Your task to perform on an android device: Open accessibility settings Image 0: 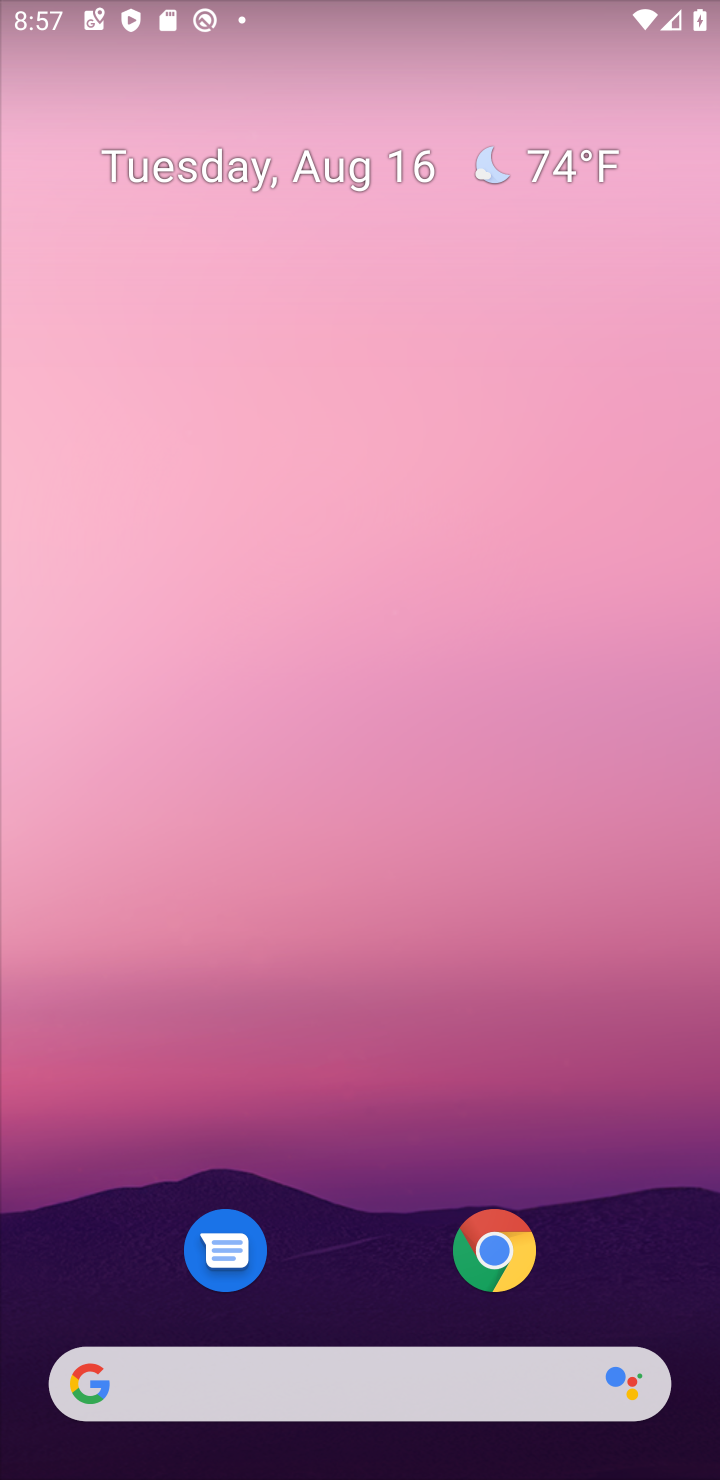
Step 0: drag from (380, 389) to (427, 55)
Your task to perform on an android device: Open accessibility settings Image 1: 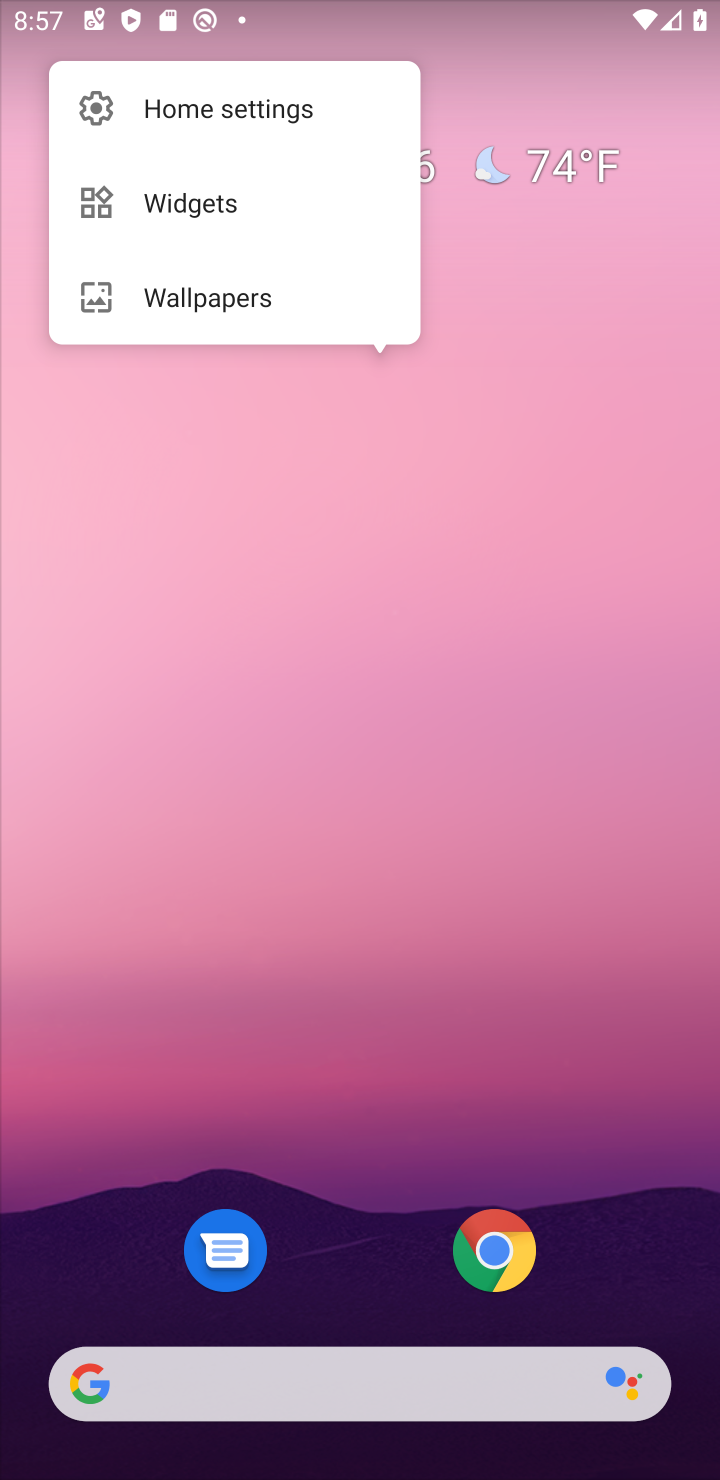
Step 1: drag from (475, 421) to (517, 59)
Your task to perform on an android device: Open accessibility settings Image 2: 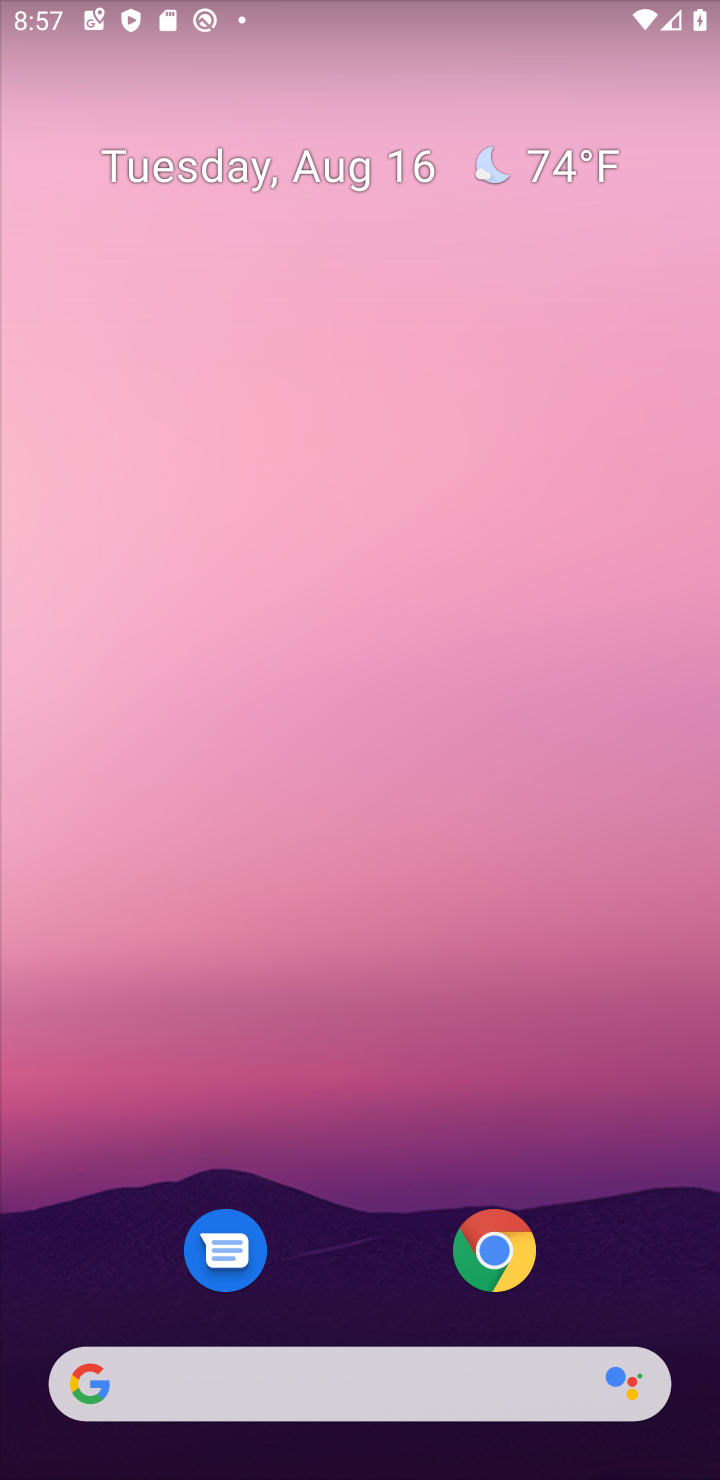
Step 2: drag from (394, 1265) to (383, 108)
Your task to perform on an android device: Open accessibility settings Image 3: 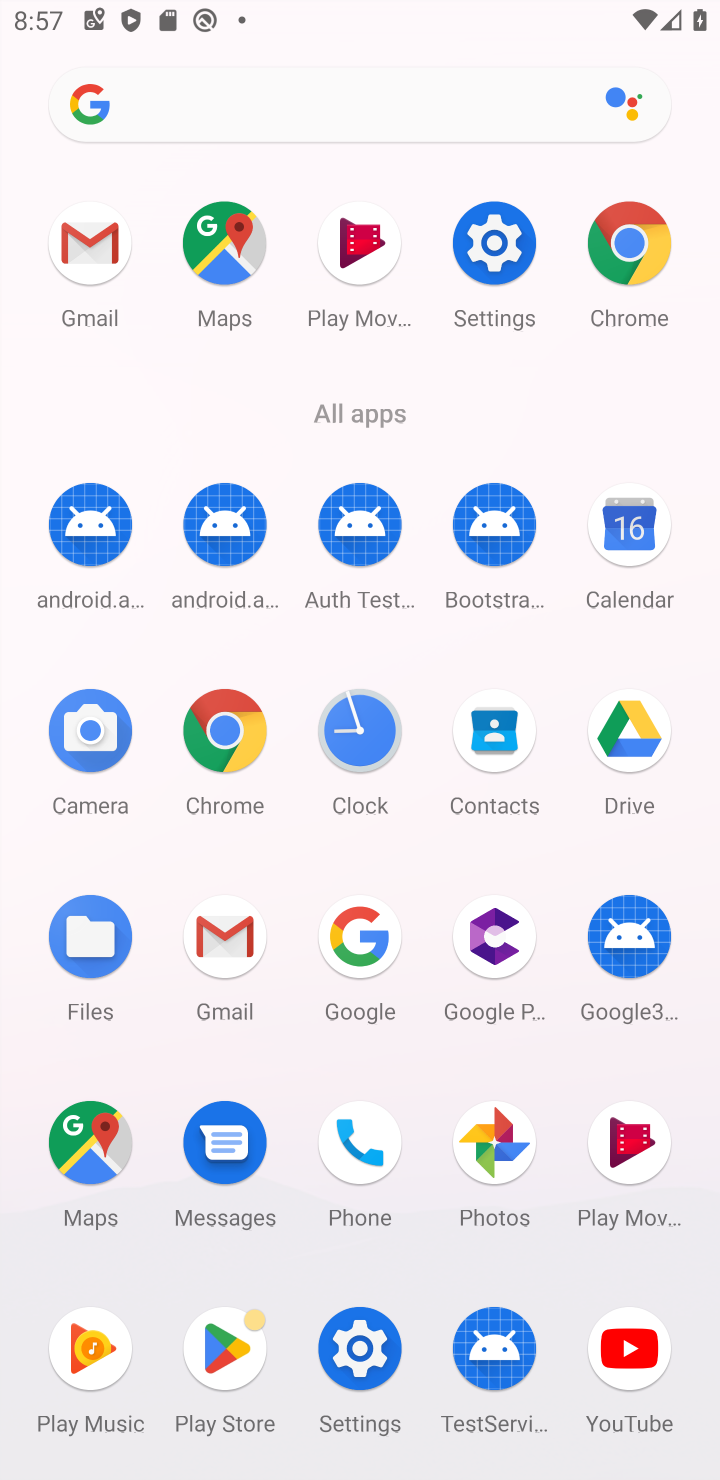
Step 3: click (493, 204)
Your task to perform on an android device: Open accessibility settings Image 4: 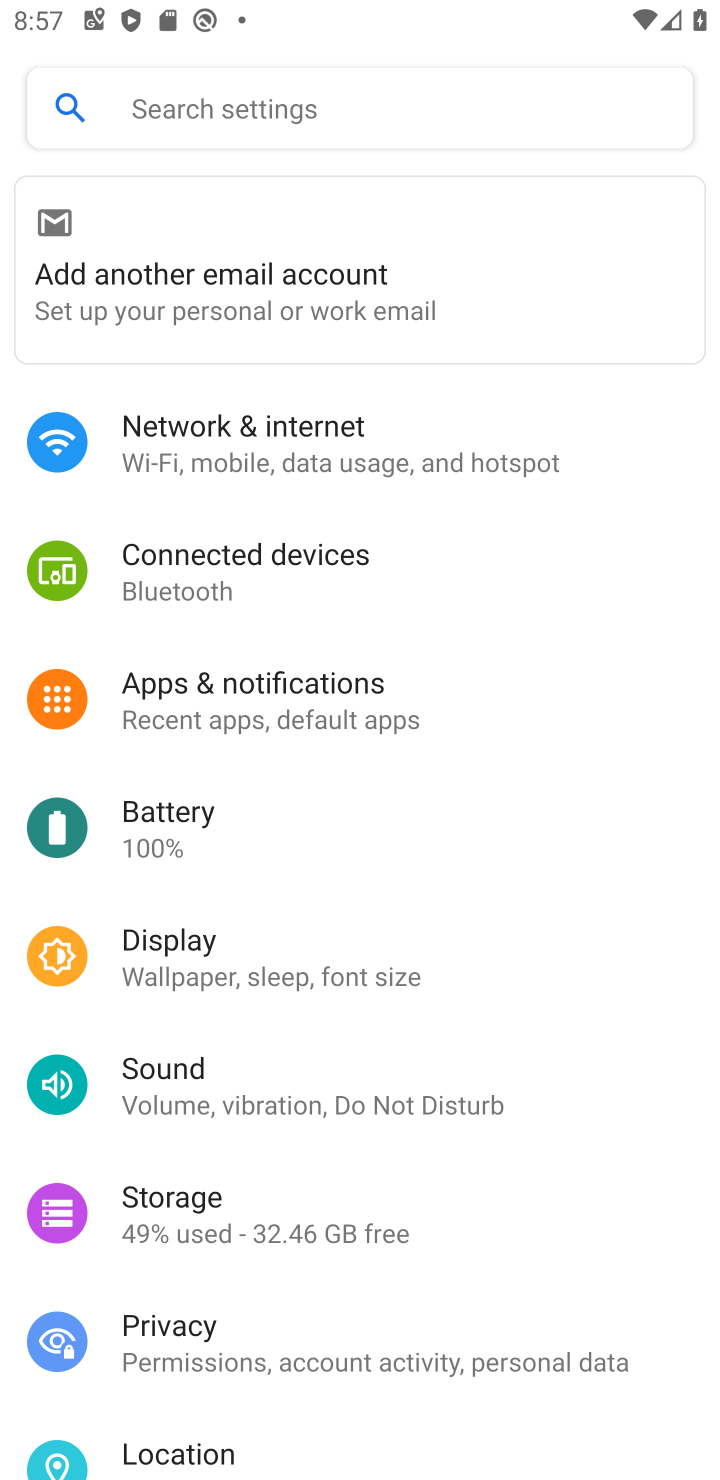
Step 4: drag from (331, 871) to (388, 281)
Your task to perform on an android device: Open accessibility settings Image 5: 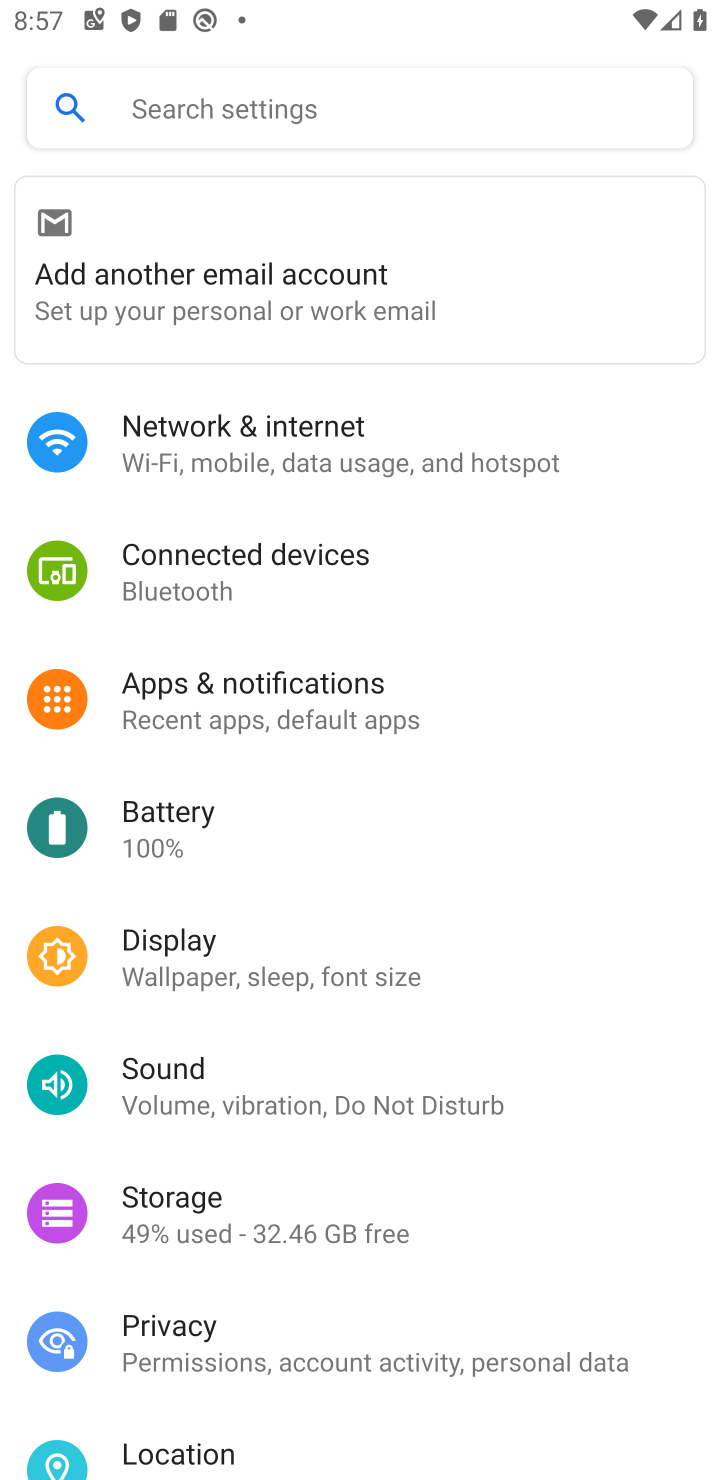
Step 5: drag from (388, 834) to (421, 252)
Your task to perform on an android device: Open accessibility settings Image 6: 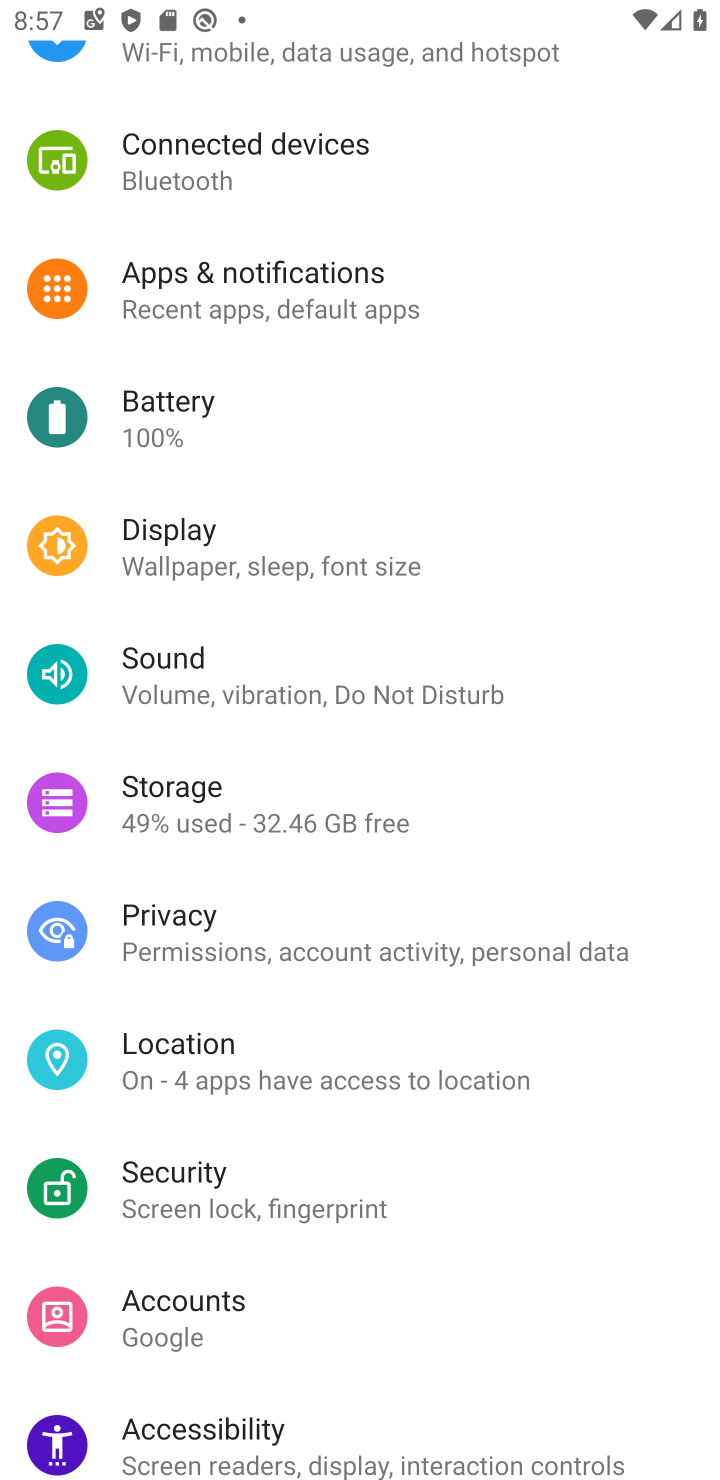
Step 6: click (206, 1431)
Your task to perform on an android device: Open accessibility settings Image 7: 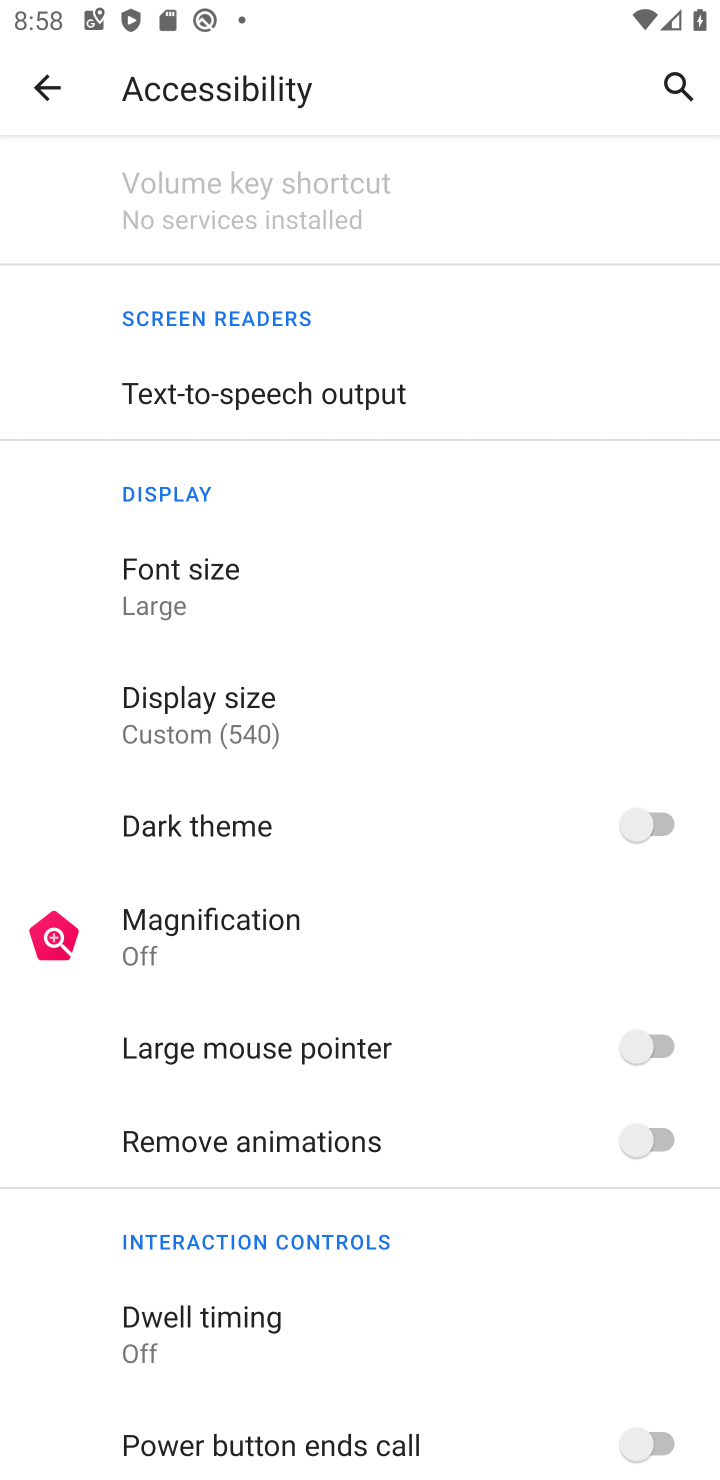
Step 7: task complete